Your task to perform on an android device: check battery use Image 0: 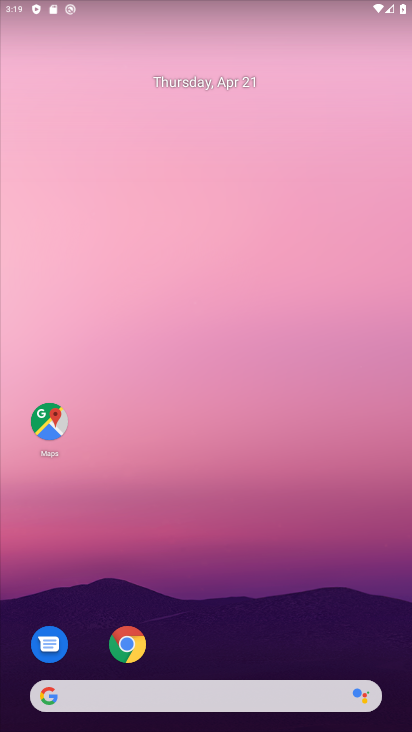
Step 0: drag from (219, 625) to (148, 50)
Your task to perform on an android device: check battery use Image 1: 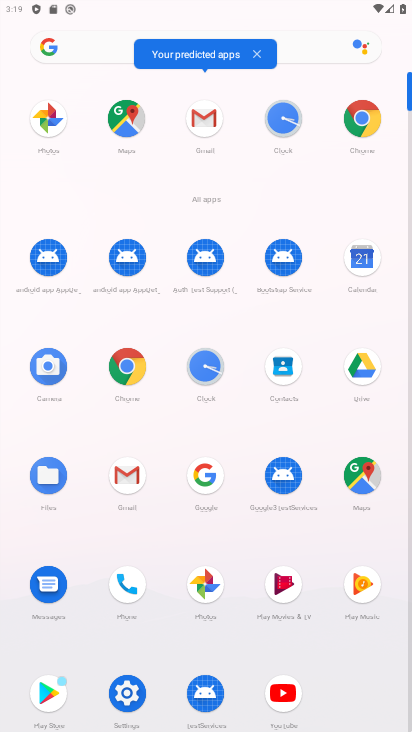
Step 1: click (132, 689)
Your task to perform on an android device: check battery use Image 2: 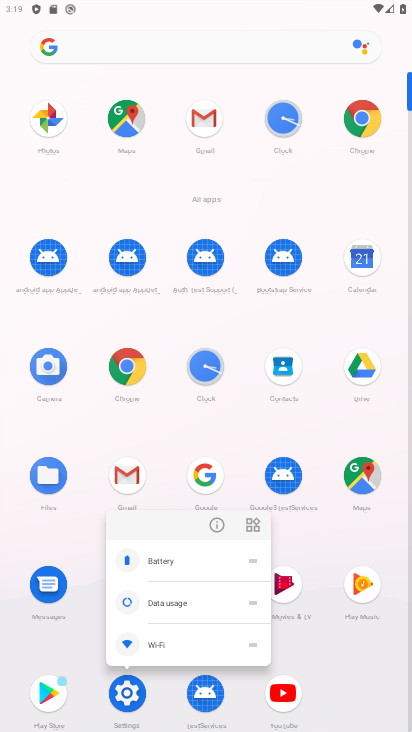
Step 2: click (134, 685)
Your task to perform on an android device: check battery use Image 3: 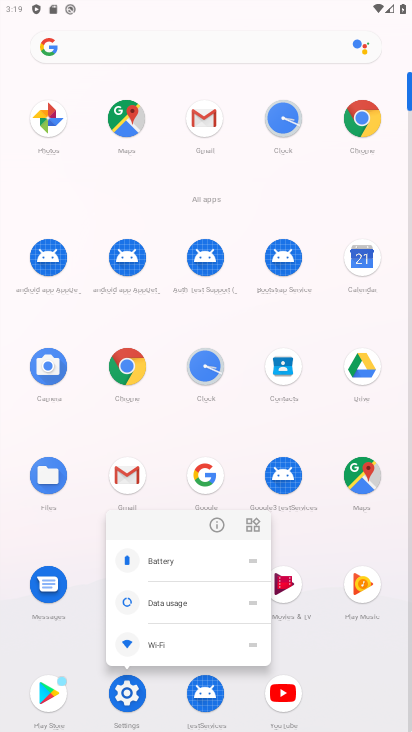
Step 3: click (126, 701)
Your task to perform on an android device: check battery use Image 4: 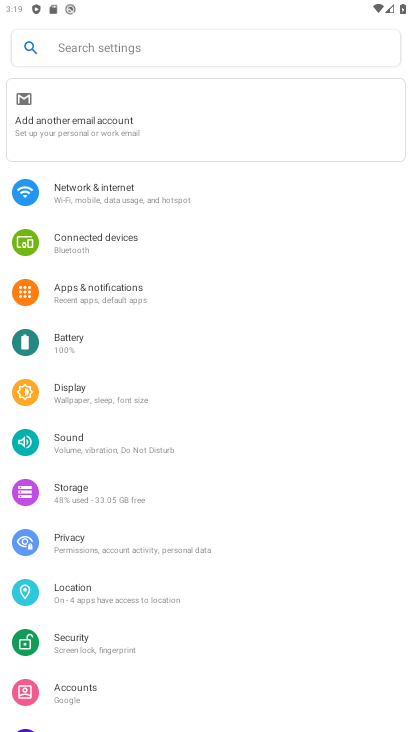
Step 4: click (70, 346)
Your task to perform on an android device: check battery use Image 5: 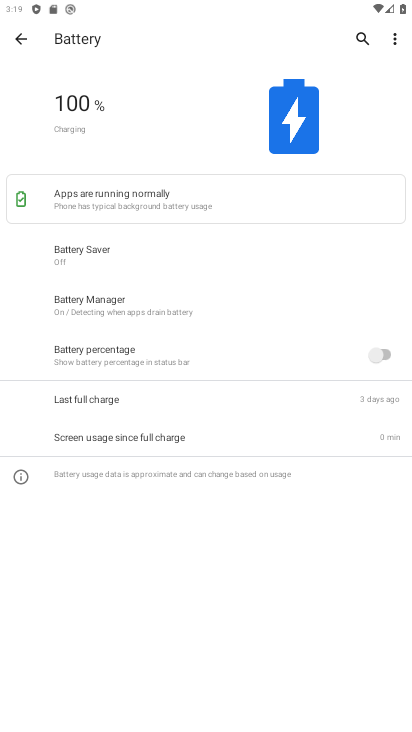
Step 5: click (390, 35)
Your task to perform on an android device: check battery use Image 6: 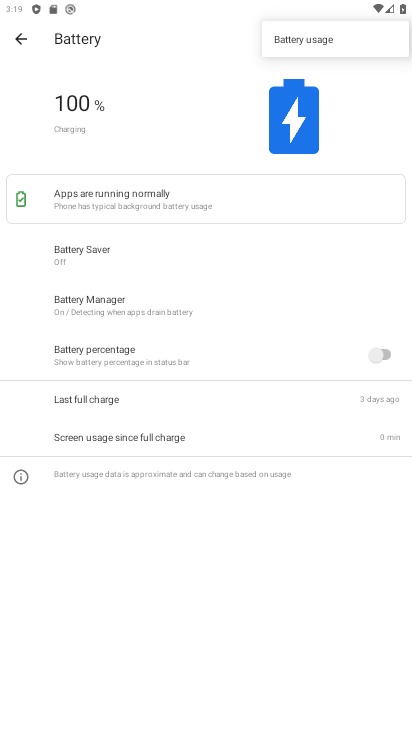
Step 6: click (314, 45)
Your task to perform on an android device: check battery use Image 7: 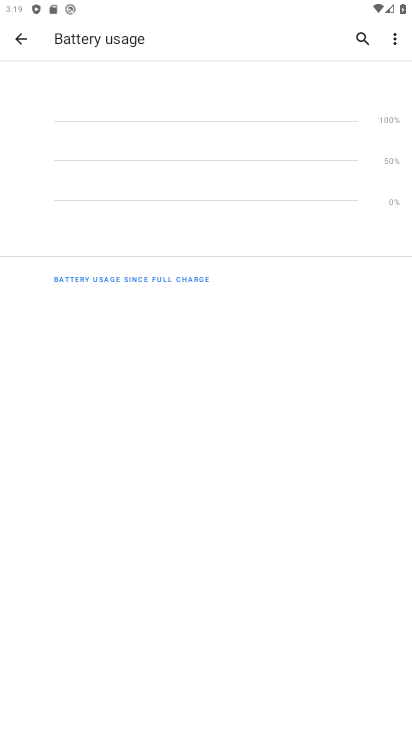
Step 7: task complete